Your task to perform on an android device: Go to network settings Image 0: 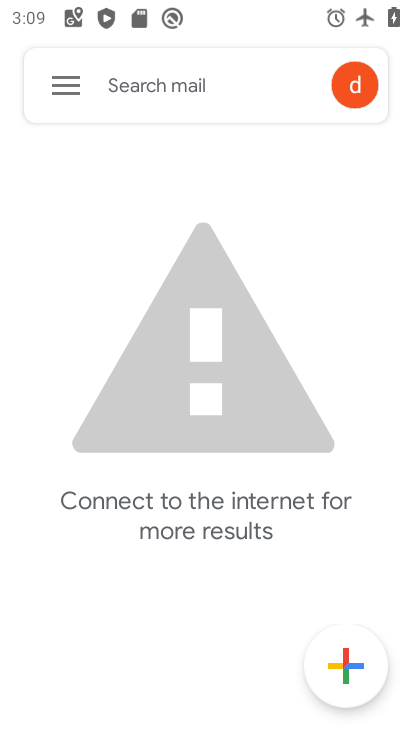
Step 0: press home button
Your task to perform on an android device: Go to network settings Image 1: 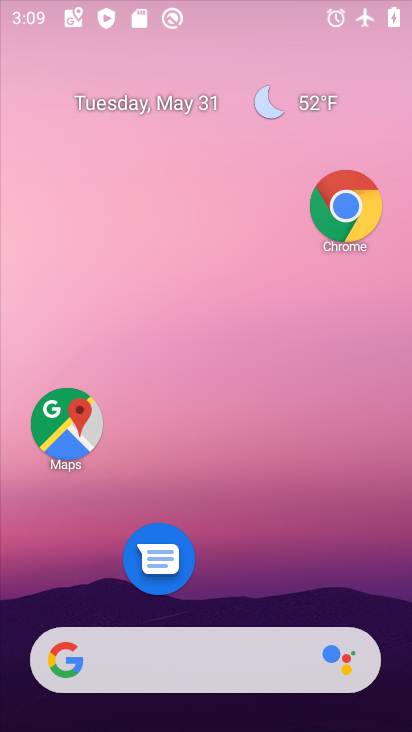
Step 1: drag from (212, 658) to (321, 135)
Your task to perform on an android device: Go to network settings Image 2: 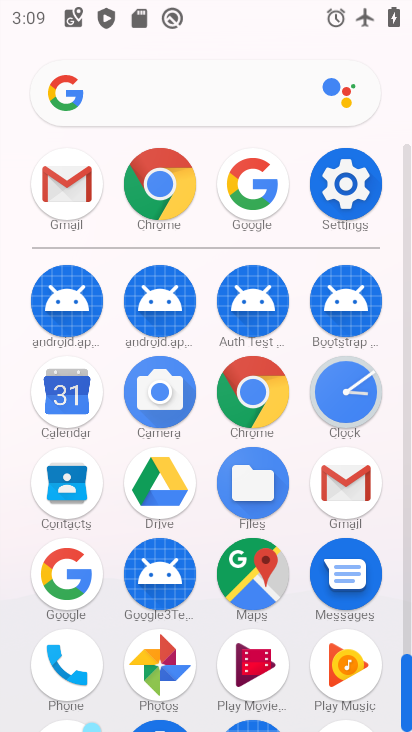
Step 2: click (349, 209)
Your task to perform on an android device: Go to network settings Image 3: 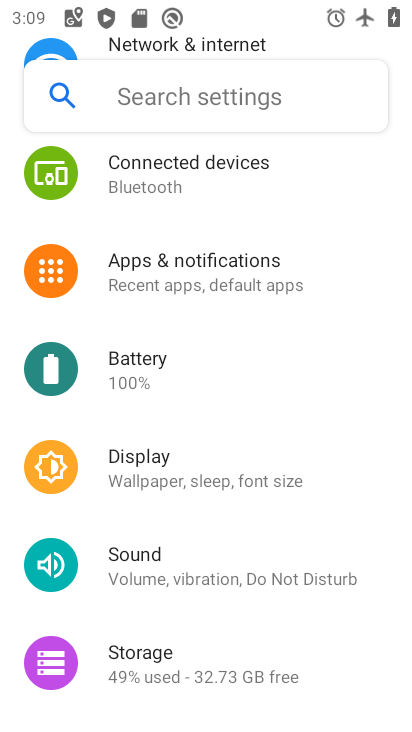
Step 3: drag from (219, 208) to (176, 729)
Your task to perform on an android device: Go to network settings Image 4: 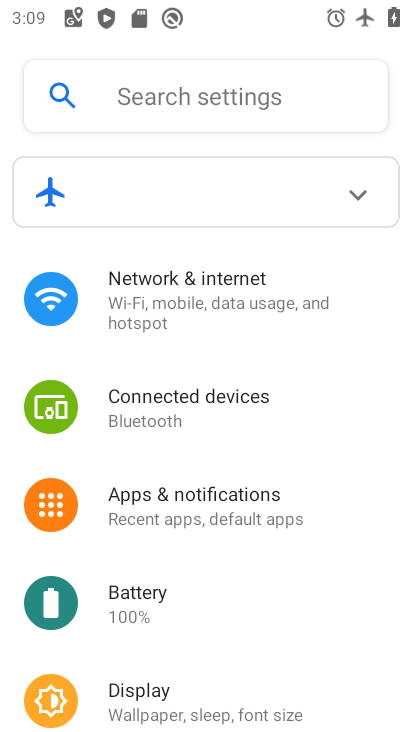
Step 4: click (237, 331)
Your task to perform on an android device: Go to network settings Image 5: 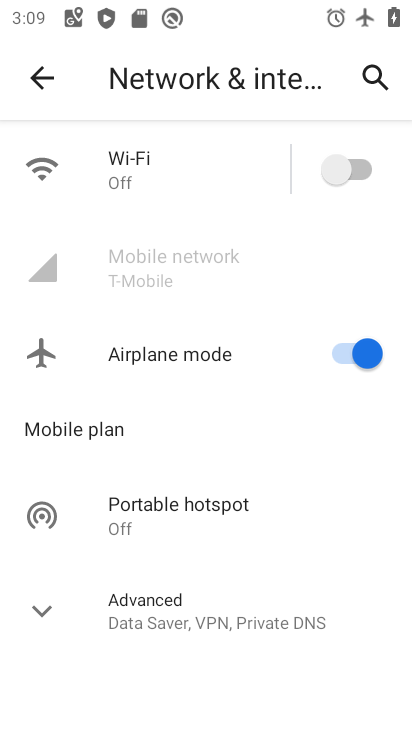
Step 5: task complete